Your task to perform on an android device: Go to accessibility settings Image 0: 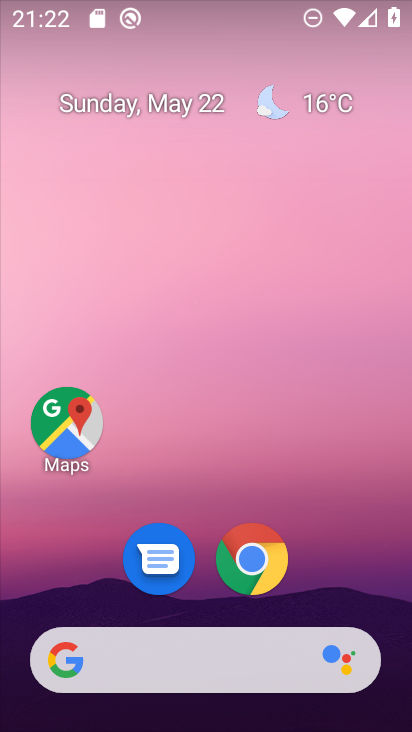
Step 0: drag from (280, 605) to (292, 209)
Your task to perform on an android device: Go to accessibility settings Image 1: 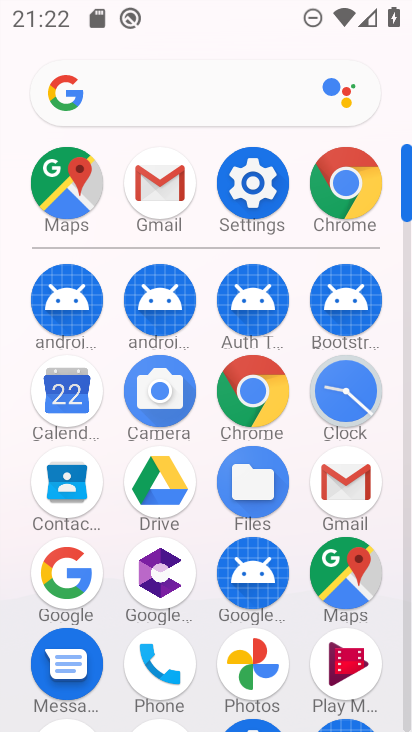
Step 1: click (243, 184)
Your task to perform on an android device: Go to accessibility settings Image 2: 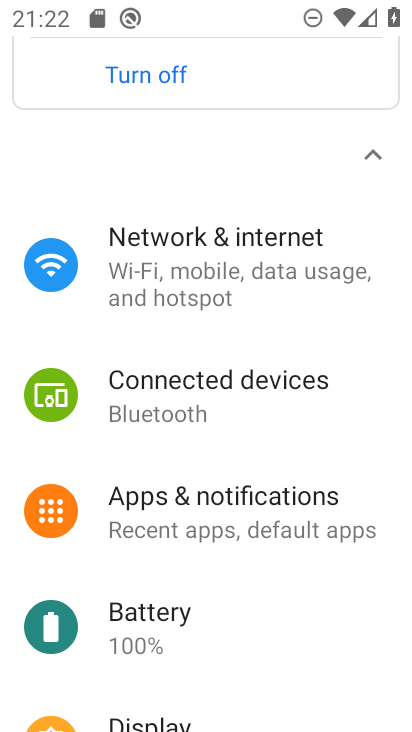
Step 2: drag from (173, 110) to (282, 409)
Your task to perform on an android device: Go to accessibility settings Image 3: 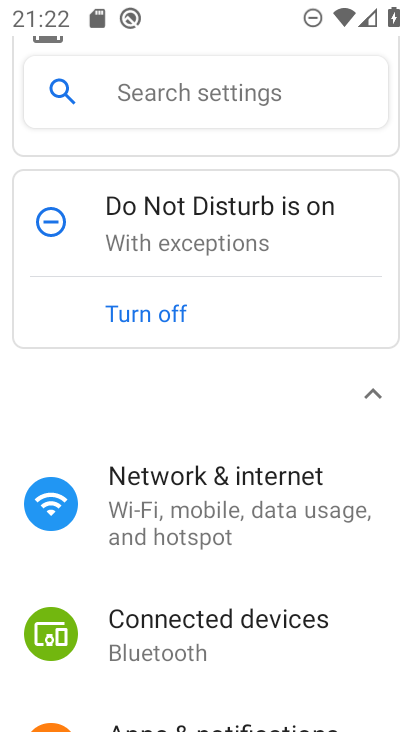
Step 3: click (170, 105)
Your task to perform on an android device: Go to accessibility settings Image 4: 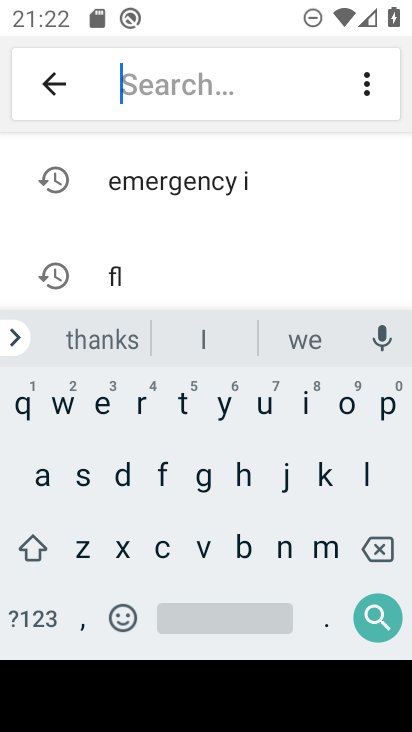
Step 4: click (38, 471)
Your task to perform on an android device: Go to accessibility settings Image 5: 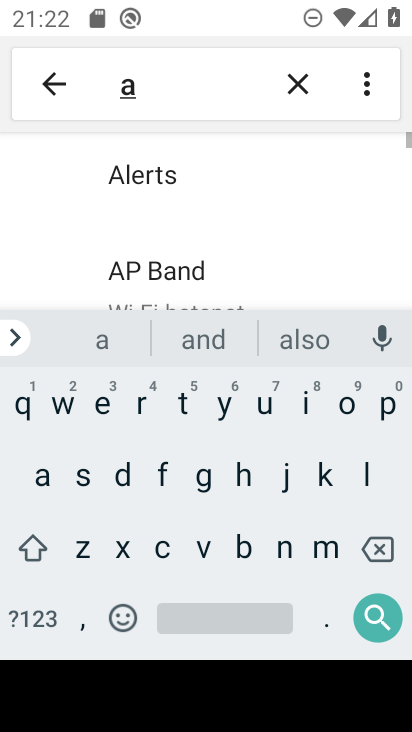
Step 5: click (160, 548)
Your task to perform on an android device: Go to accessibility settings Image 6: 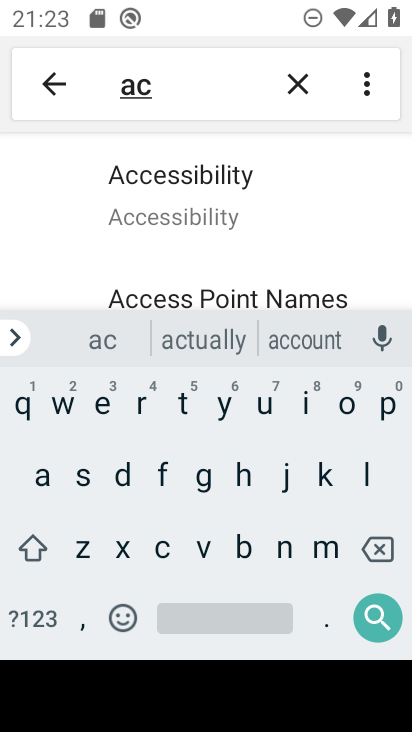
Step 6: click (177, 205)
Your task to perform on an android device: Go to accessibility settings Image 7: 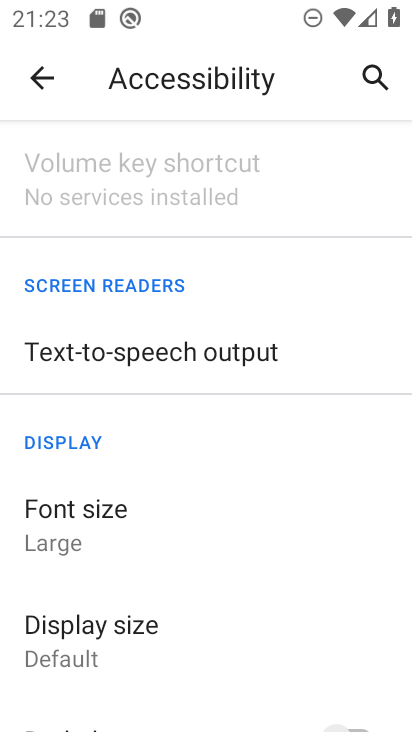
Step 7: task complete